Your task to perform on an android device: Search for razer huntsman on costco.com, select the first entry, and add it to the cart. Image 0: 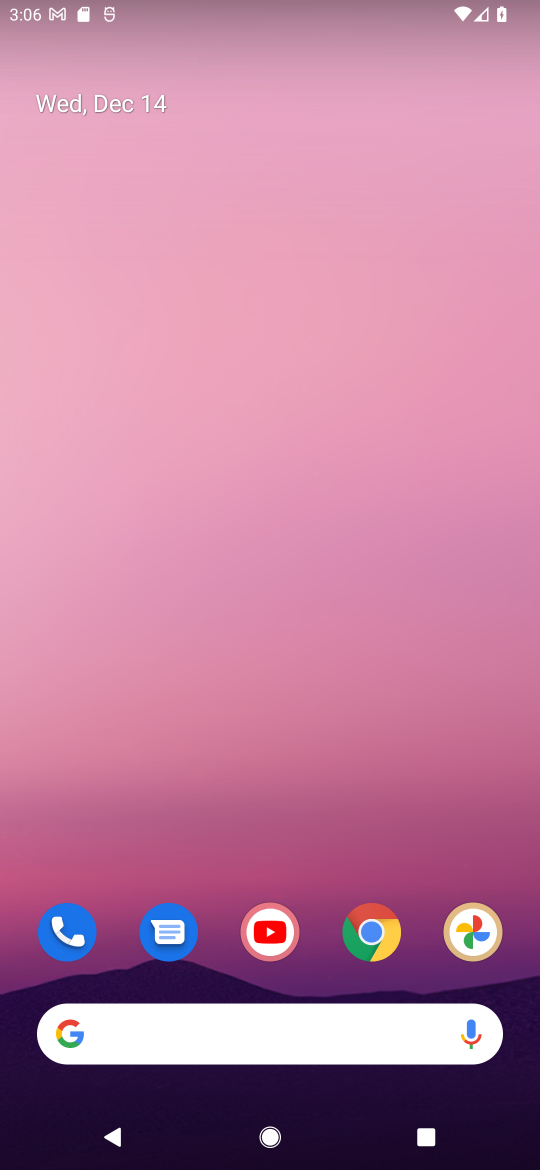
Step 0: drag from (258, 812) to (206, 110)
Your task to perform on an android device: Search for razer huntsman on costco.com, select the first entry, and add it to the cart. Image 1: 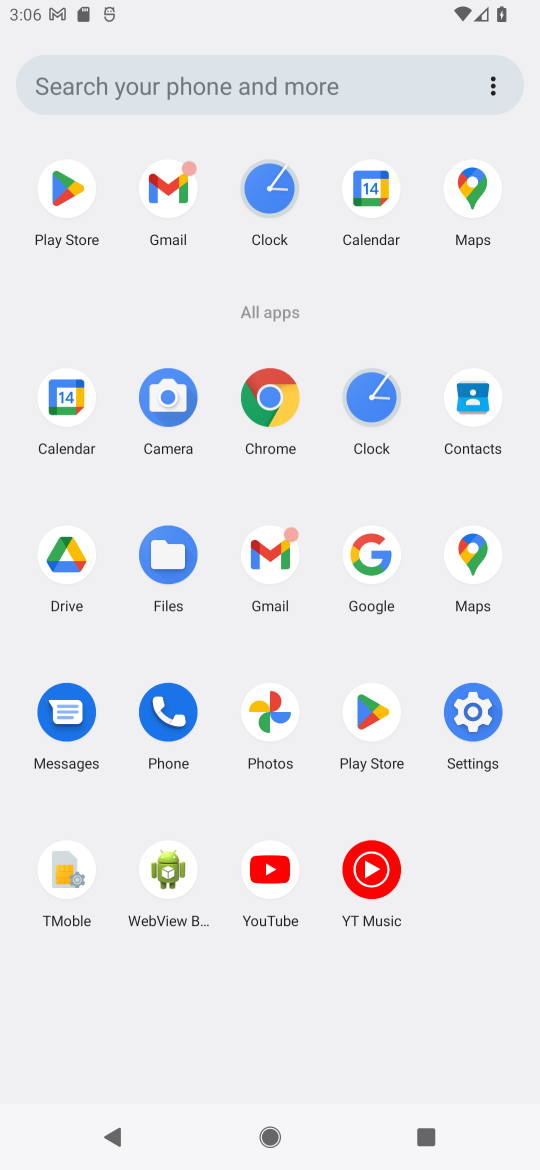
Step 1: drag from (219, 977) to (267, 71)
Your task to perform on an android device: Search for razer huntsman on costco.com, select the first entry, and add it to the cart. Image 2: 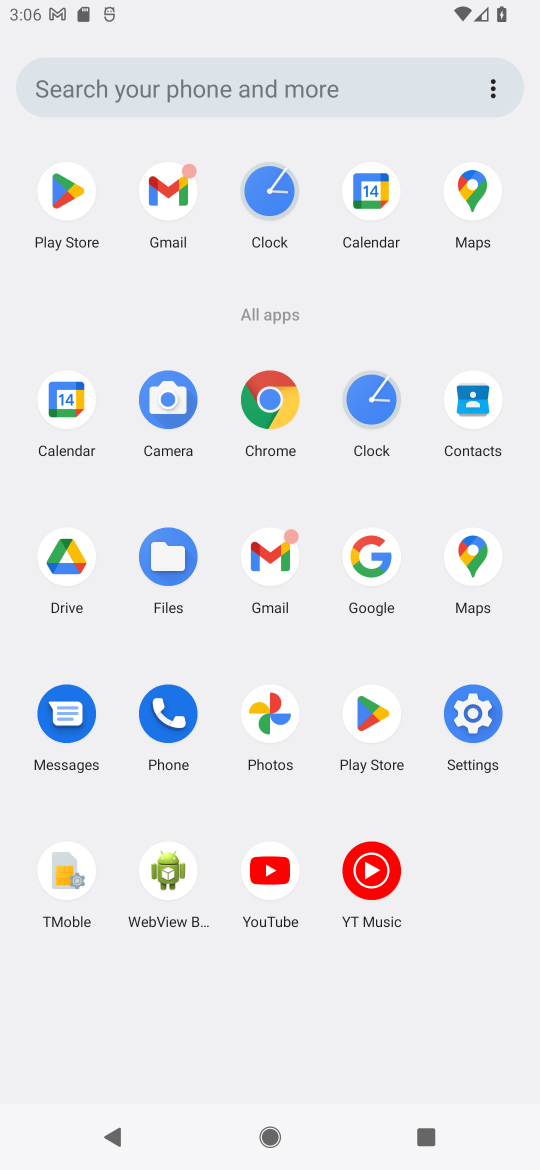
Step 2: click (371, 566)
Your task to perform on an android device: Search for razer huntsman on costco.com, select the first entry, and add it to the cart. Image 3: 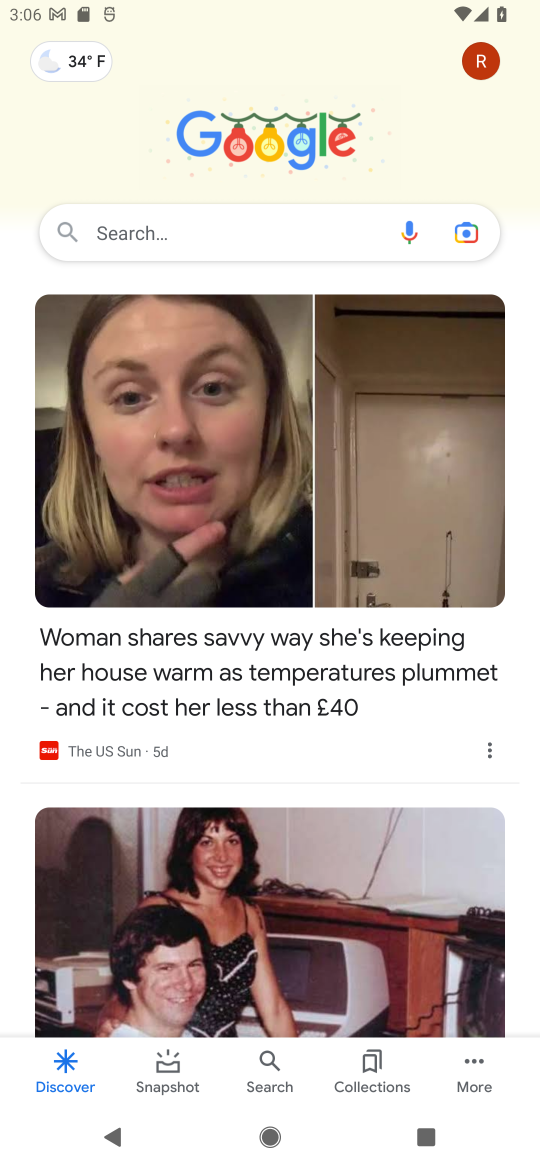
Step 3: click (252, 218)
Your task to perform on an android device: Search for razer huntsman on costco.com, select the first entry, and add it to the cart. Image 4: 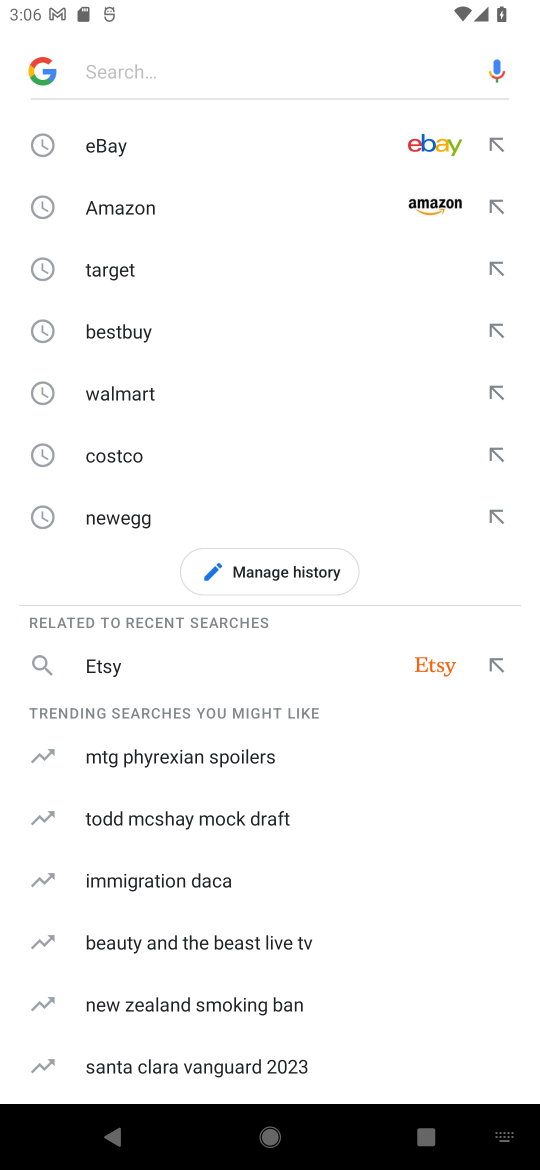
Step 4: click (116, 461)
Your task to perform on an android device: Search for razer huntsman on costco.com, select the first entry, and add it to the cart. Image 5: 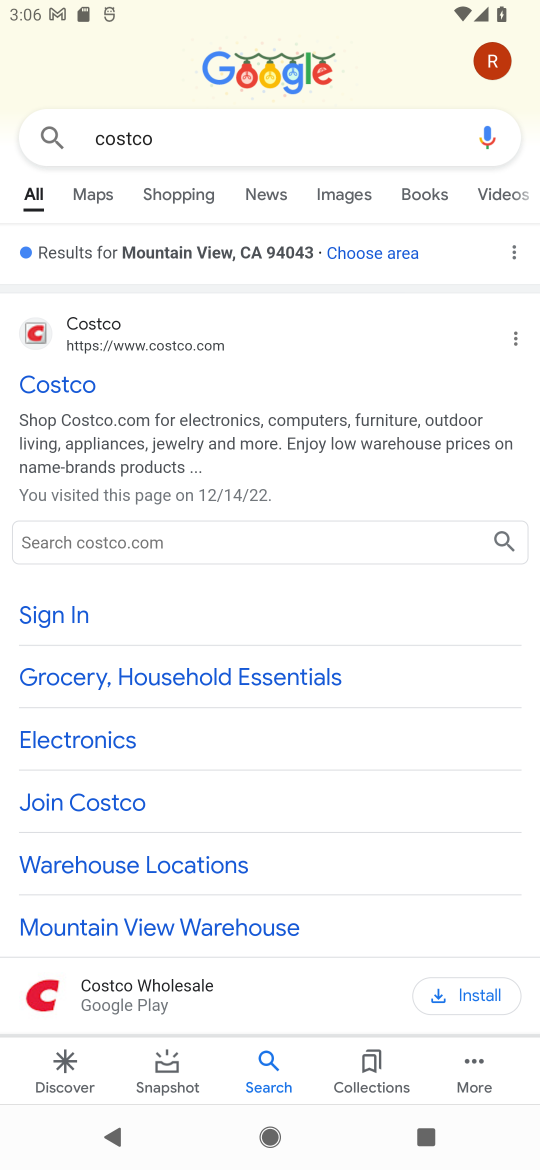
Step 5: click (71, 374)
Your task to perform on an android device: Search for razer huntsman on costco.com, select the first entry, and add it to the cart. Image 6: 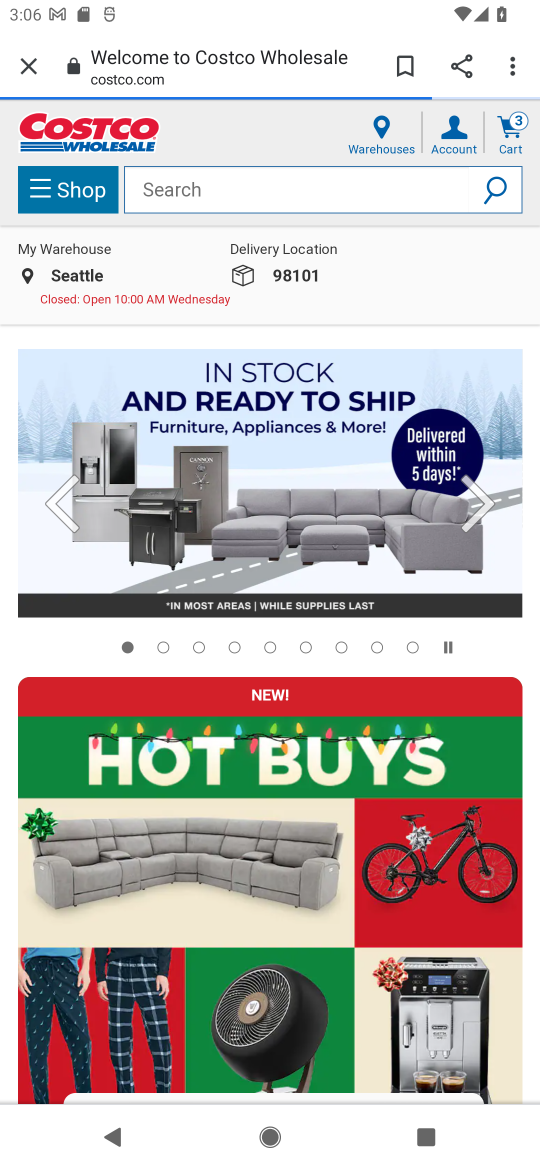
Step 6: click (331, 187)
Your task to perform on an android device: Search for razer huntsman on costco.com, select the first entry, and add it to the cart. Image 7: 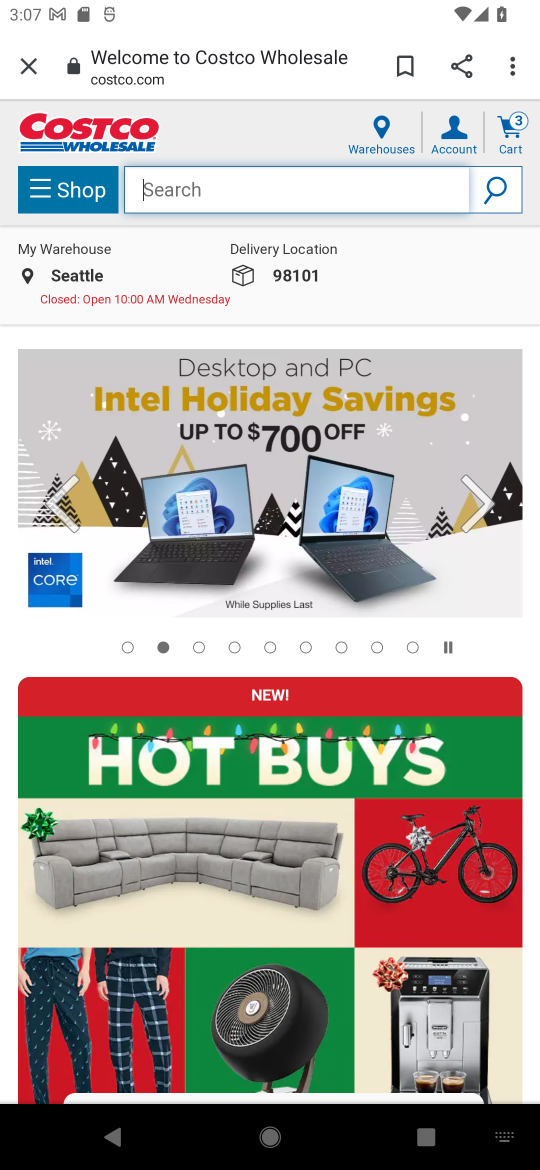
Step 7: type "razer huntsman"
Your task to perform on an android device: Search for razer huntsman on costco.com, select the first entry, and add it to the cart. Image 8: 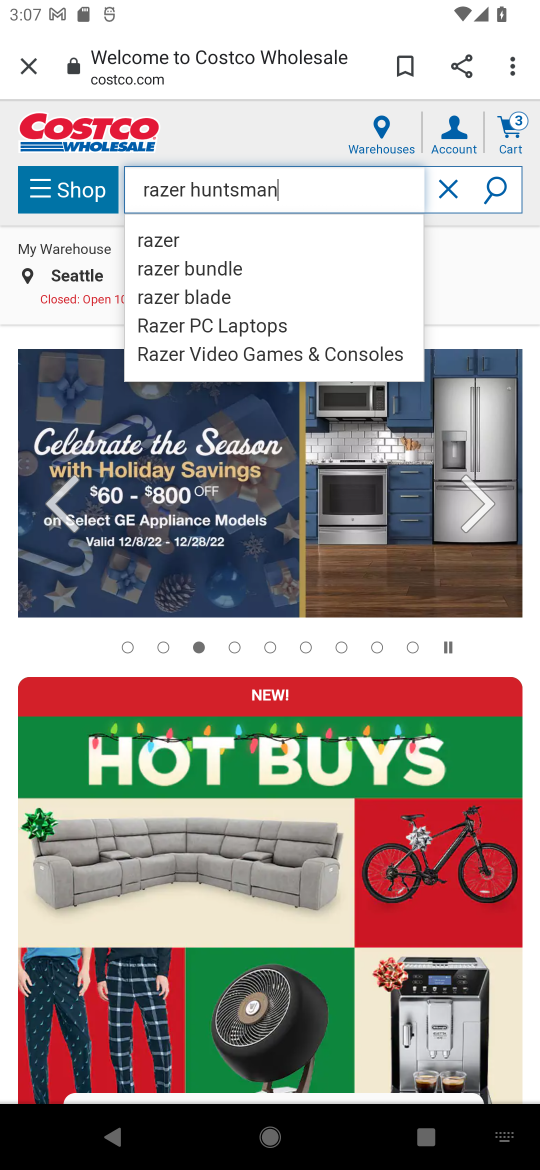
Step 8: click (494, 181)
Your task to perform on an android device: Search for razer huntsman on costco.com, select the first entry, and add it to the cart. Image 9: 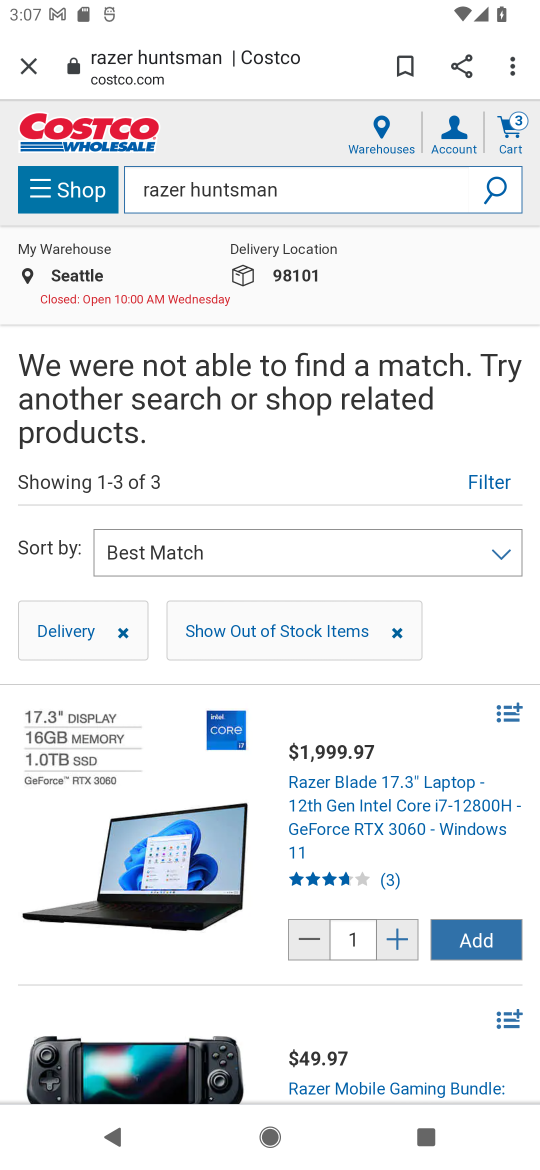
Step 9: click (477, 932)
Your task to perform on an android device: Search for razer huntsman on costco.com, select the first entry, and add it to the cart. Image 10: 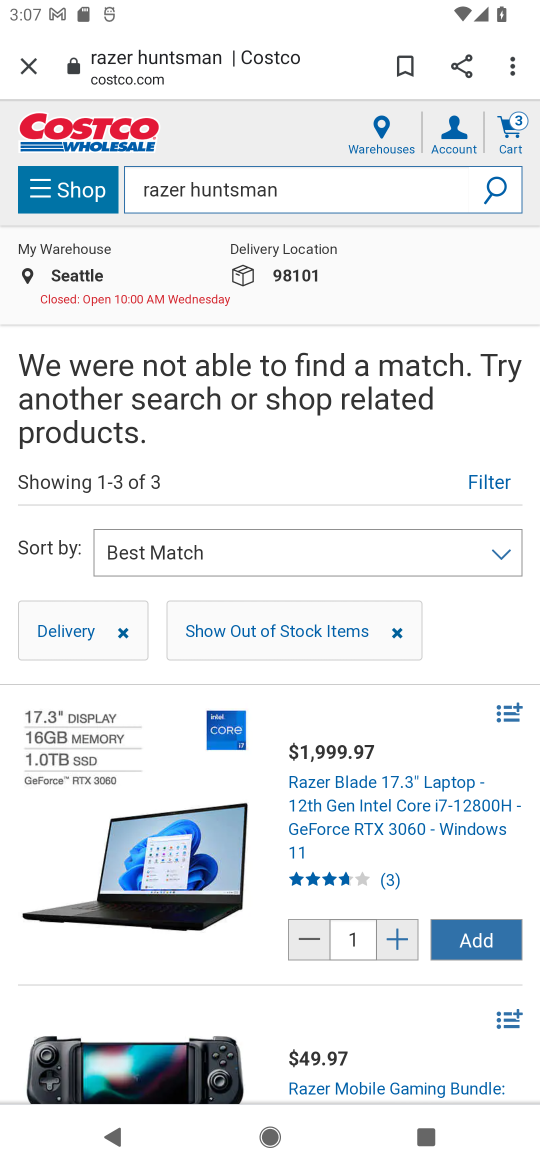
Step 10: task complete